Your task to perform on an android device: Open settings Image 0: 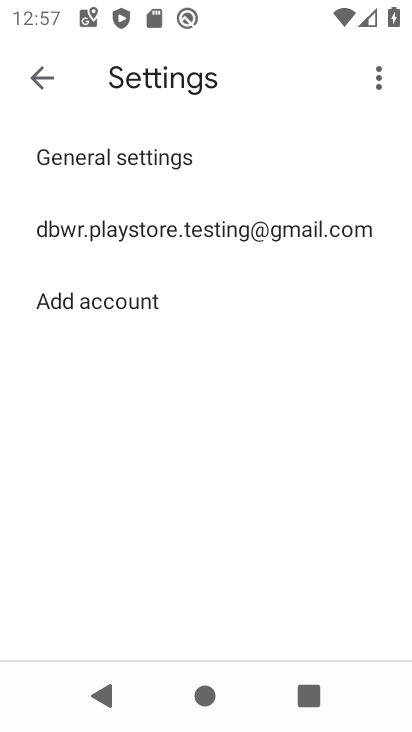
Step 0: press home button
Your task to perform on an android device: Open settings Image 1: 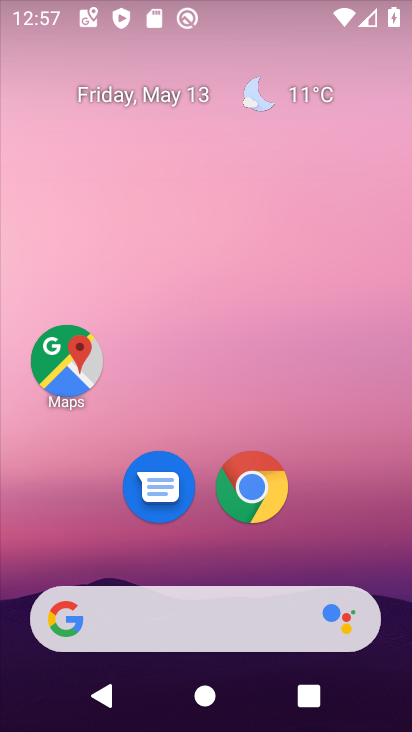
Step 1: drag from (286, 520) to (338, 153)
Your task to perform on an android device: Open settings Image 2: 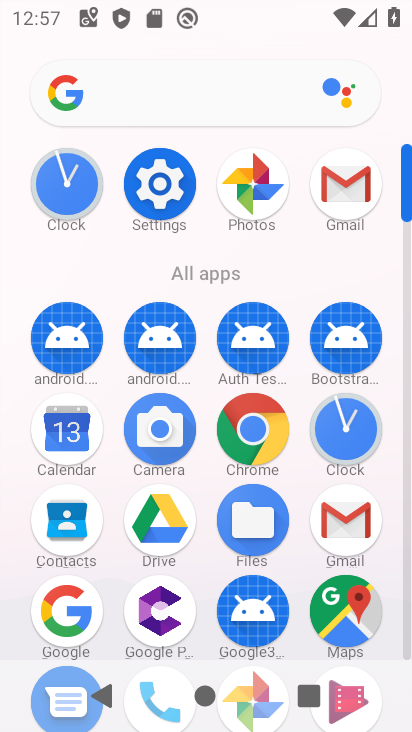
Step 2: click (179, 181)
Your task to perform on an android device: Open settings Image 3: 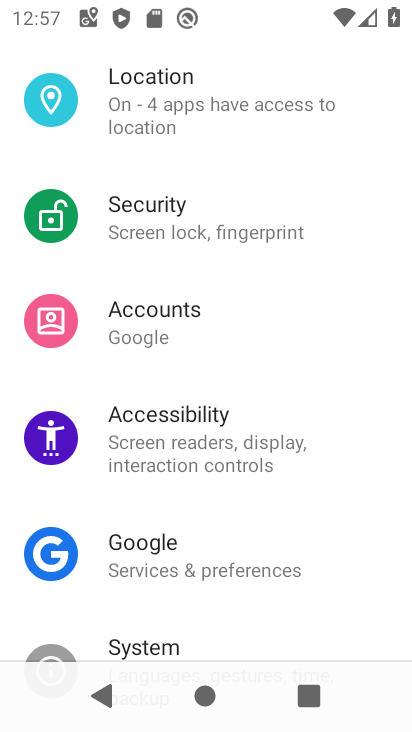
Step 3: task complete